Your task to perform on an android device: toggle javascript in the chrome app Image 0: 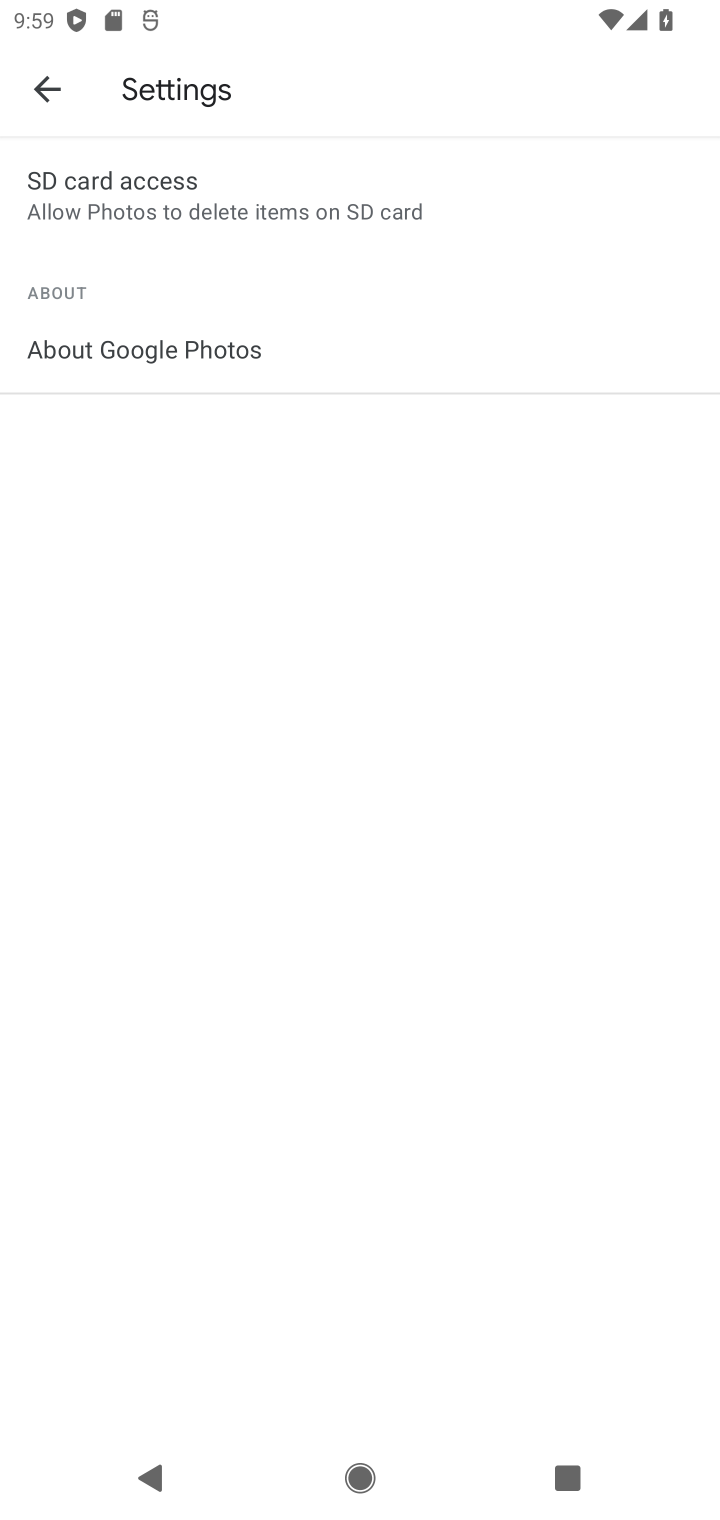
Step 0: press home button
Your task to perform on an android device: toggle javascript in the chrome app Image 1: 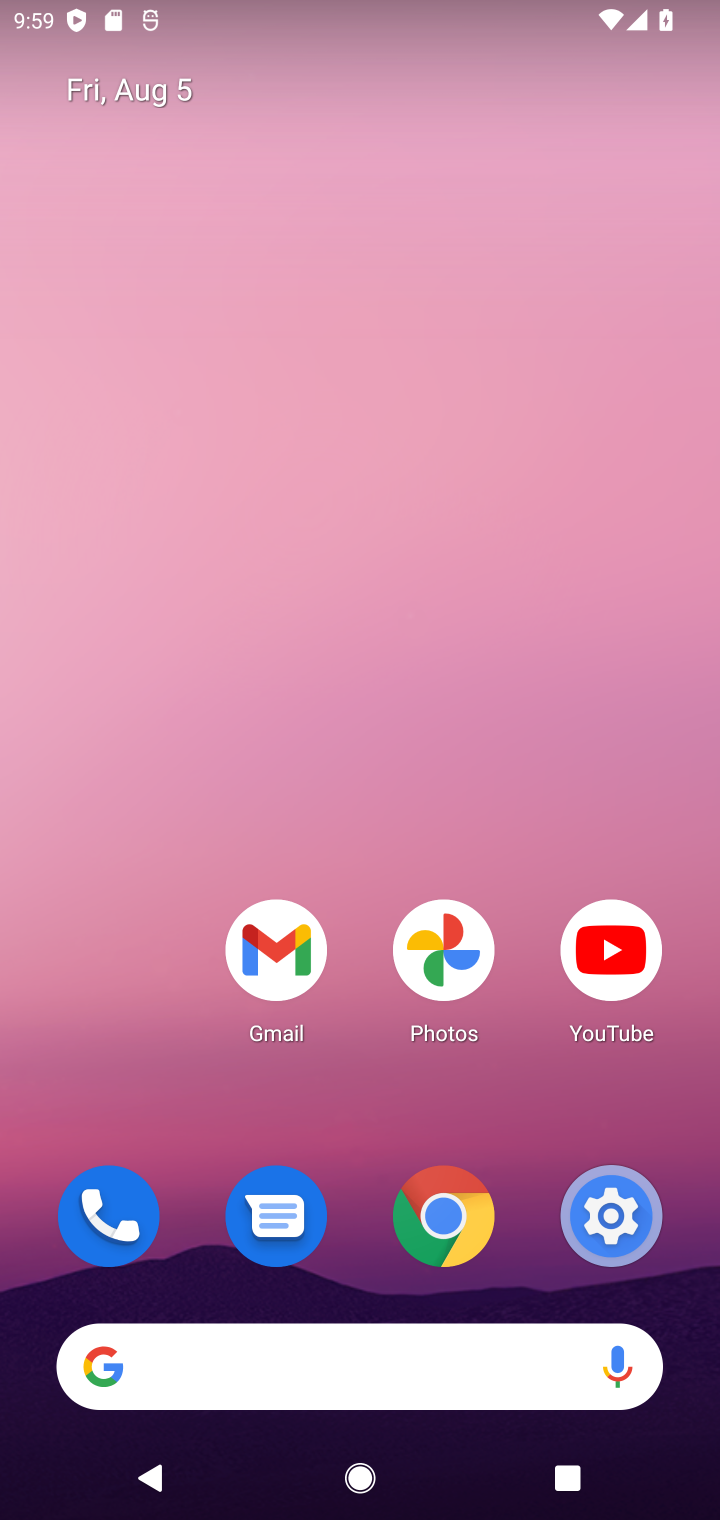
Step 1: drag from (419, 1288) to (491, 45)
Your task to perform on an android device: toggle javascript in the chrome app Image 2: 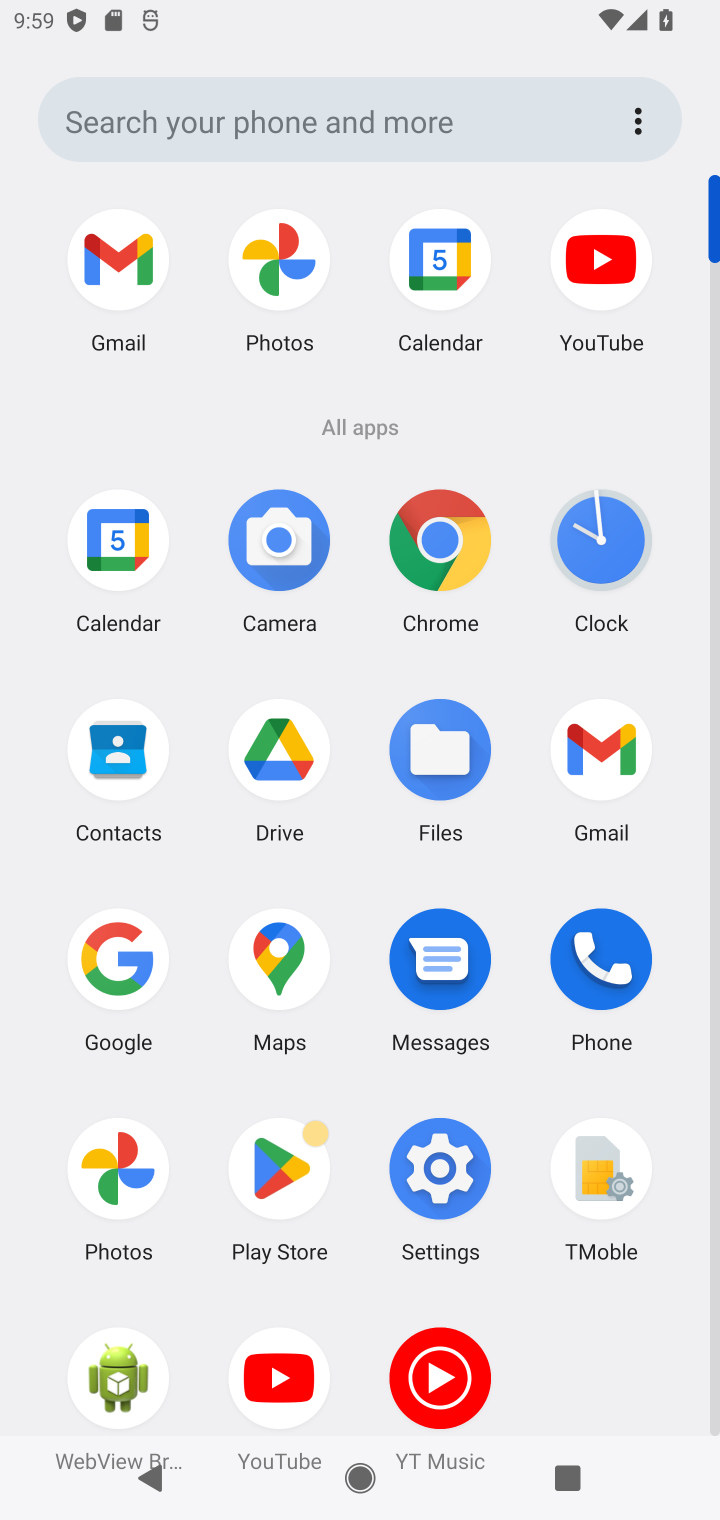
Step 2: click (432, 534)
Your task to perform on an android device: toggle javascript in the chrome app Image 3: 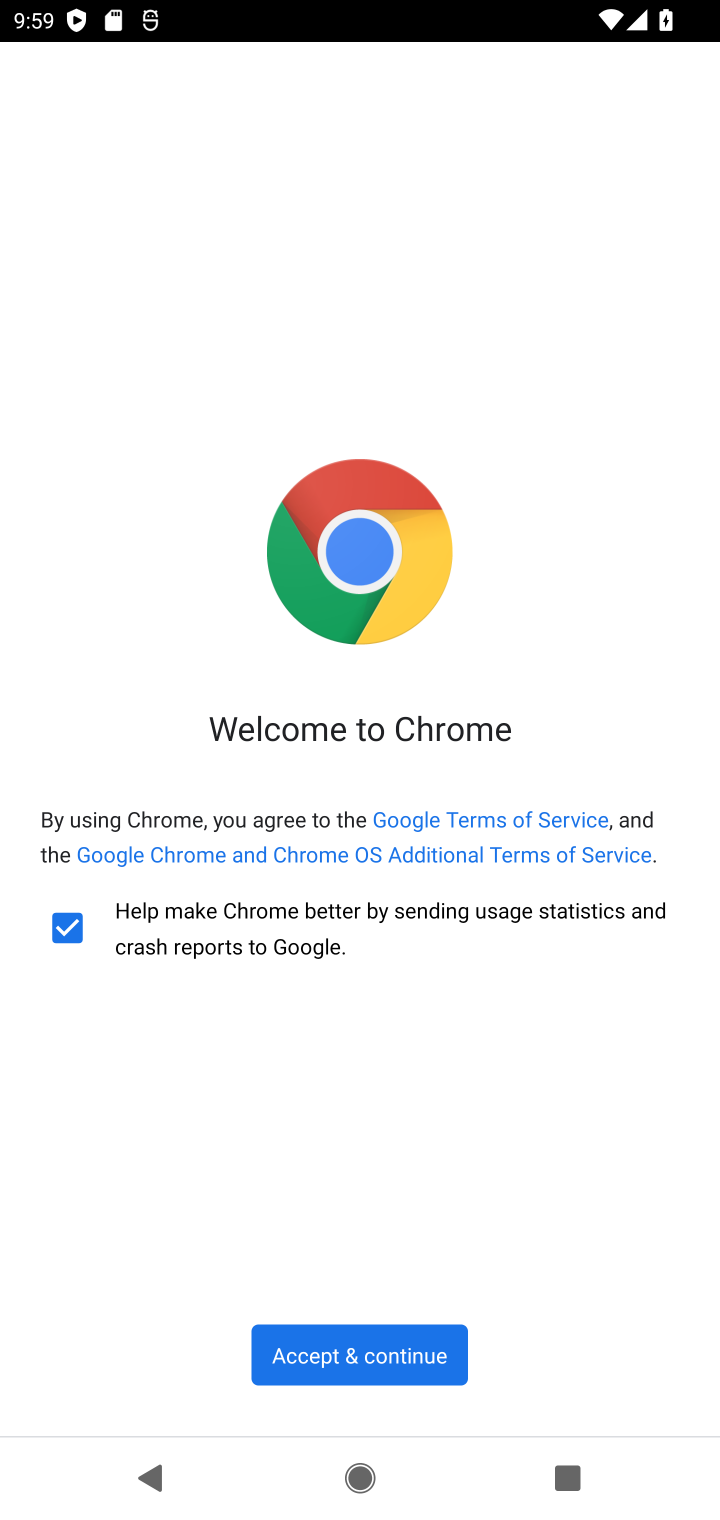
Step 3: click (304, 1341)
Your task to perform on an android device: toggle javascript in the chrome app Image 4: 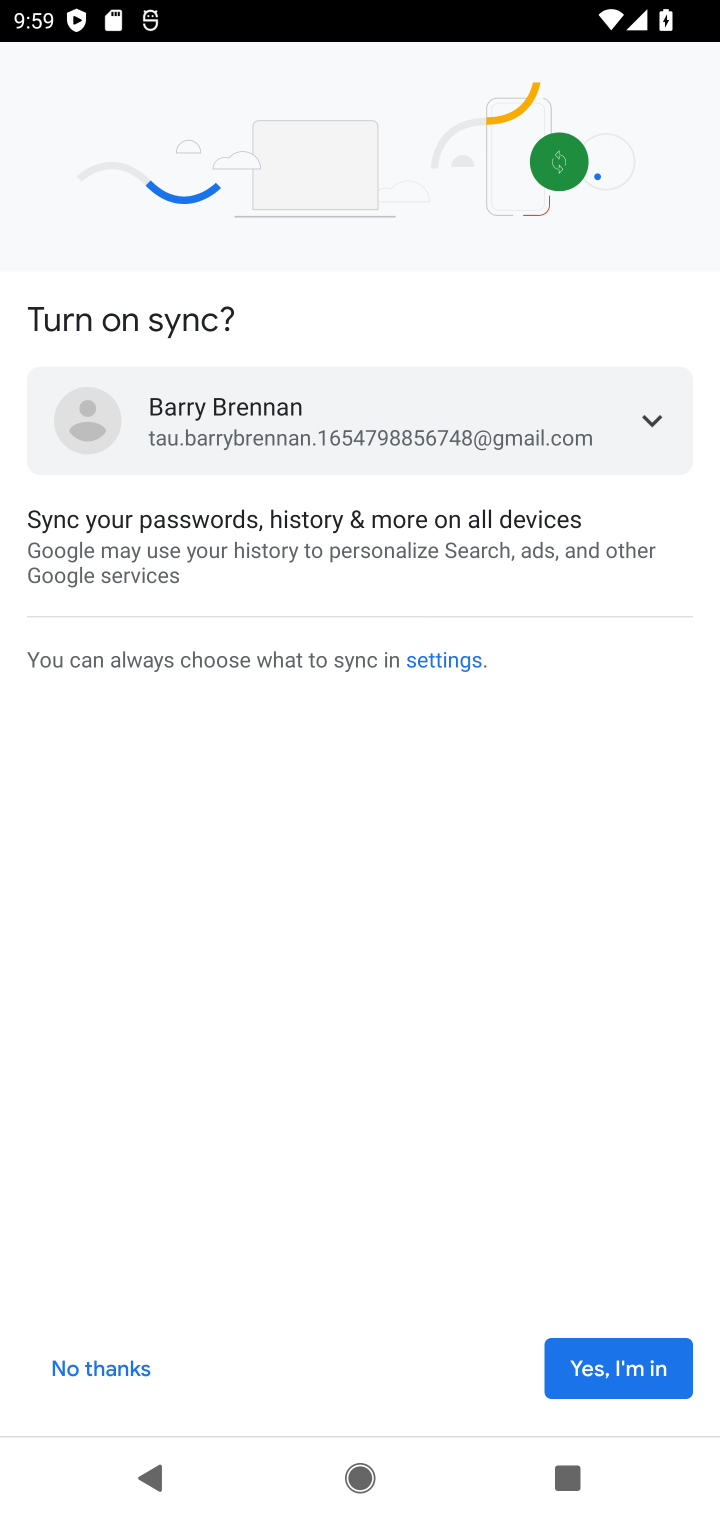
Step 4: click (107, 1367)
Your task to perform on an android device: toggle javascript in the chrome app Image 5: 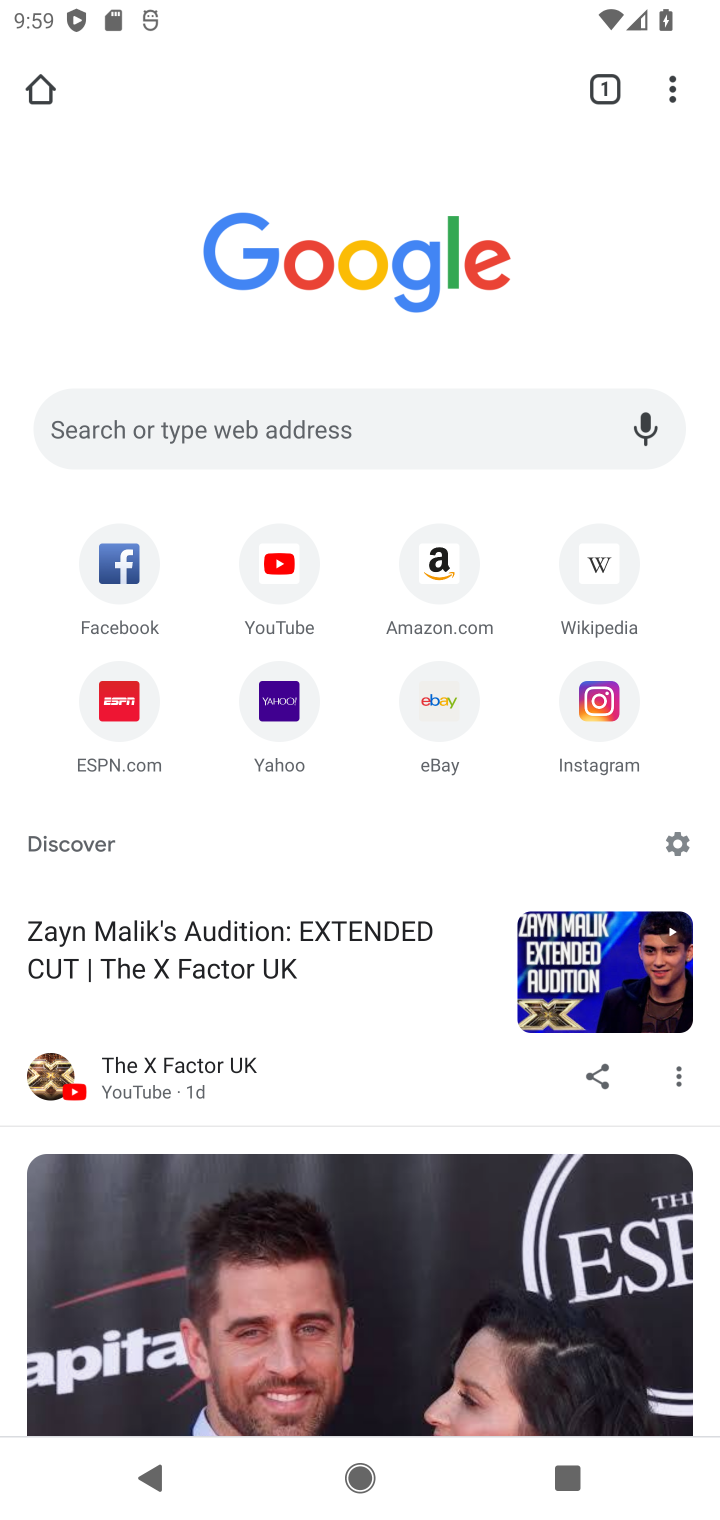
Step 5: click (674, 82)
Your task to perform on an android device: toggle javascript in the chrome app Image 6: 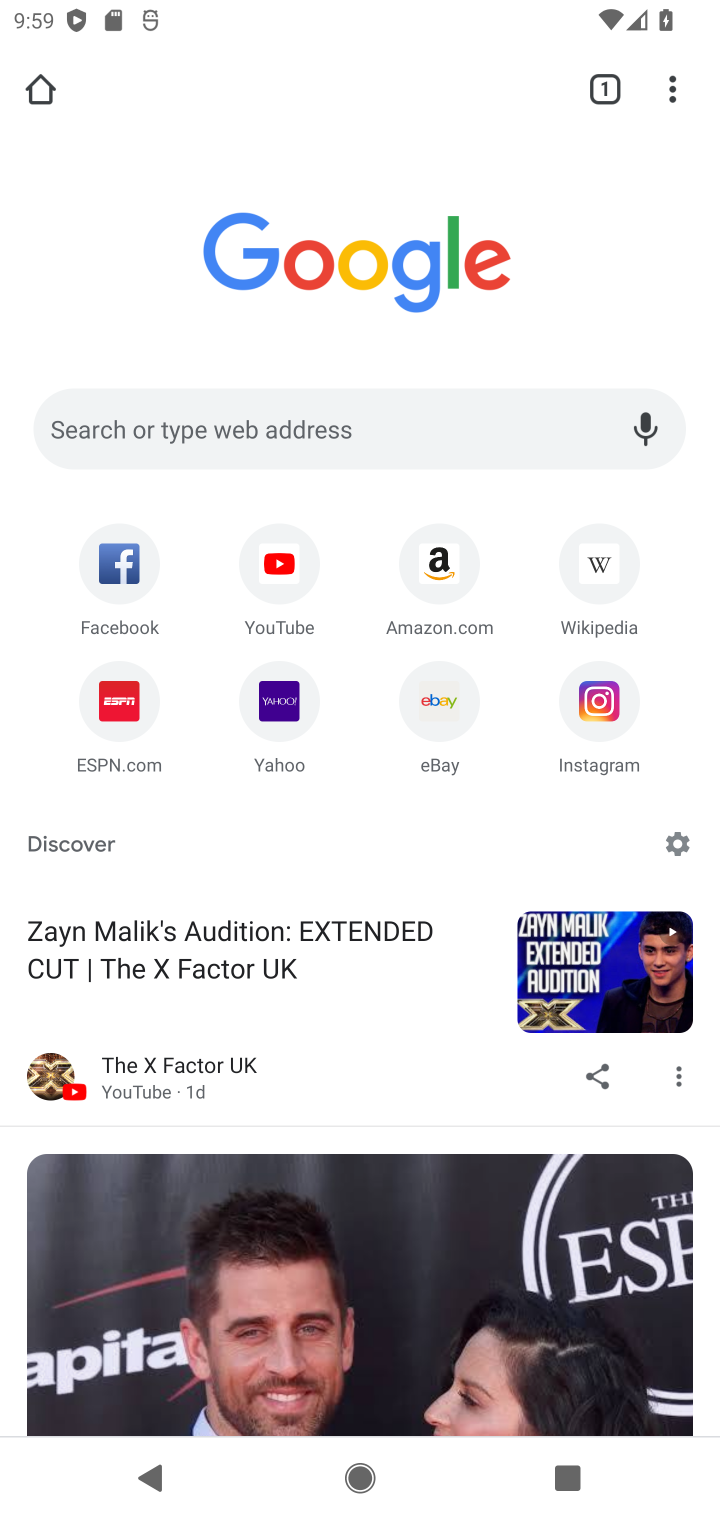
Step 6: click (669, 67)
Your task to perform on an android device: toggle javascript in the chrome app Image 7: 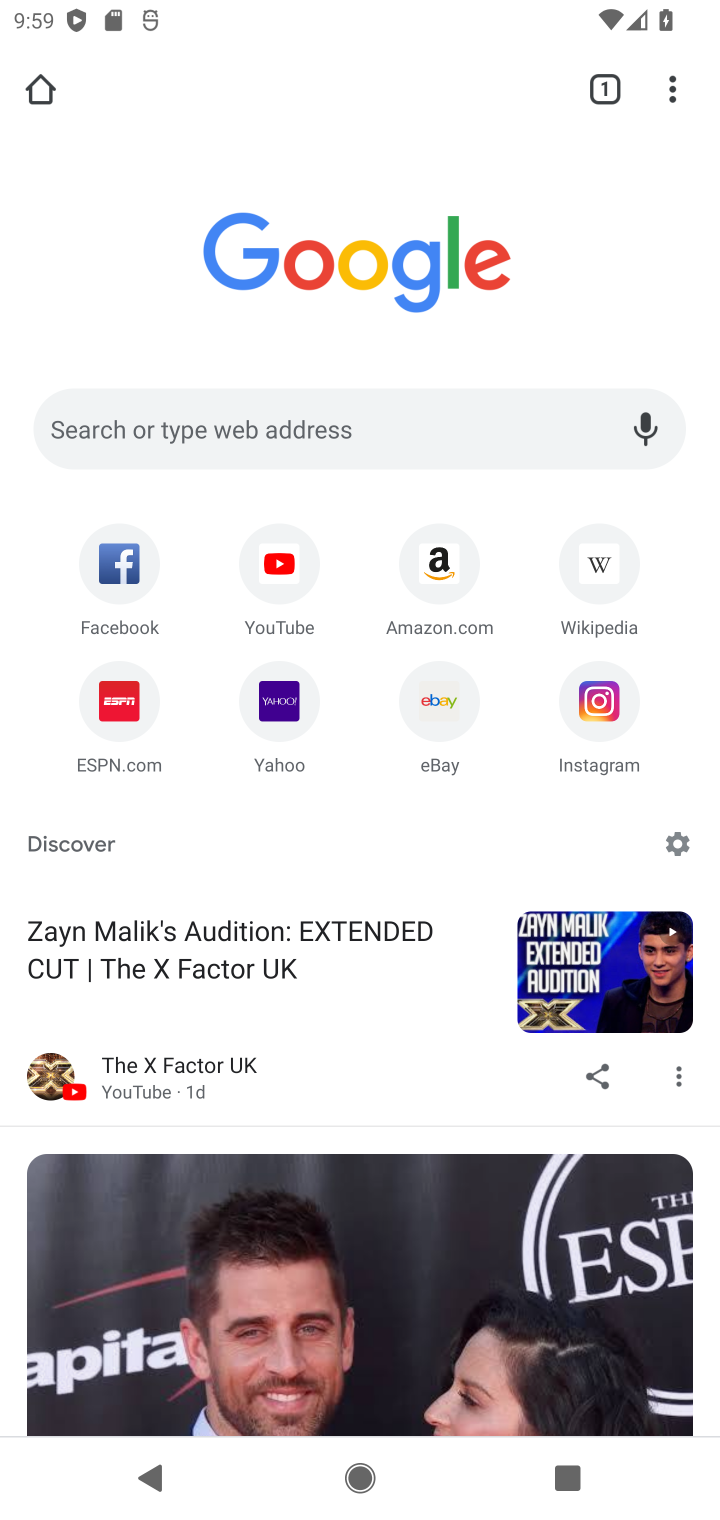
Step 7: click (665, 73)
Your task to perform on an android device: toggle javascript in the chrome app Image 8: 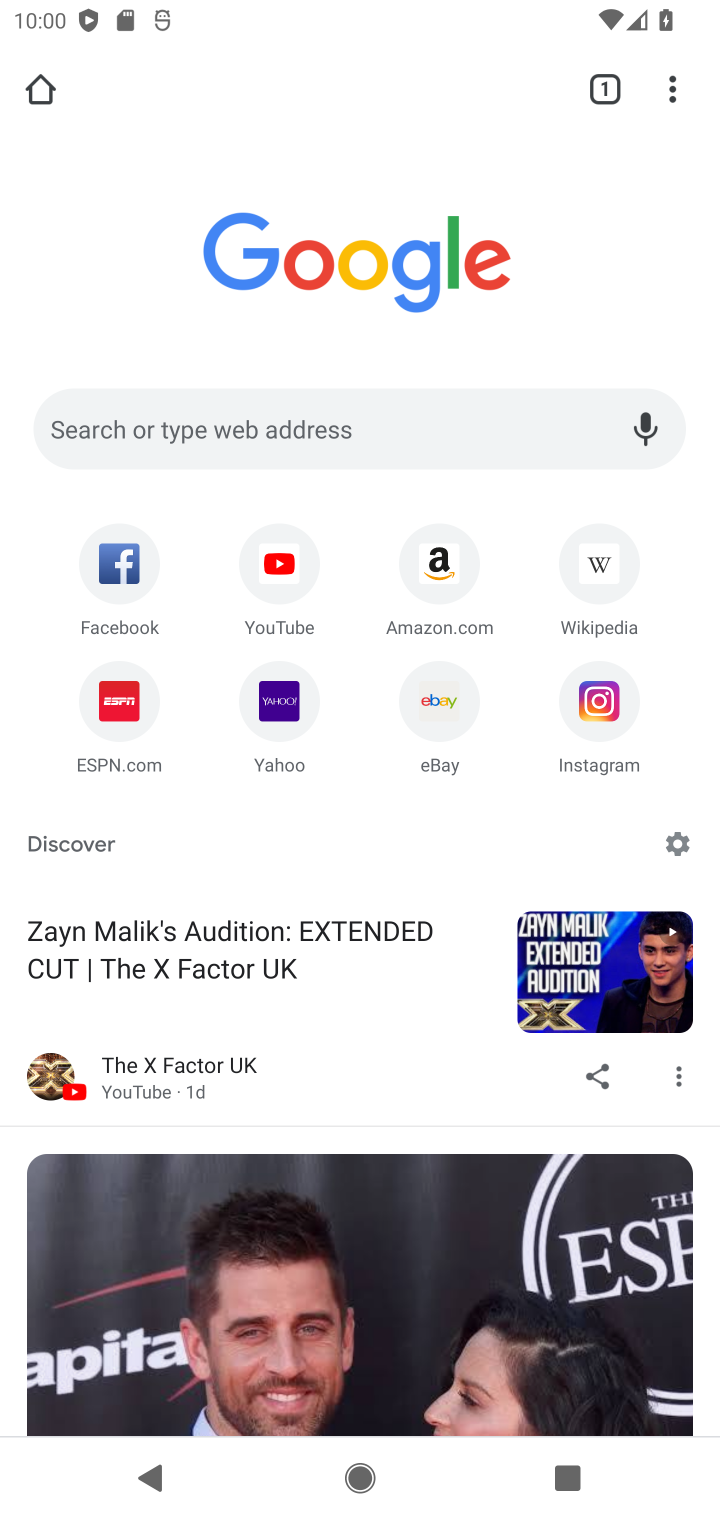
Step 8: click (680, 95)
Your task to perform on an android device: toggle javascript in the chrome app Image 9: 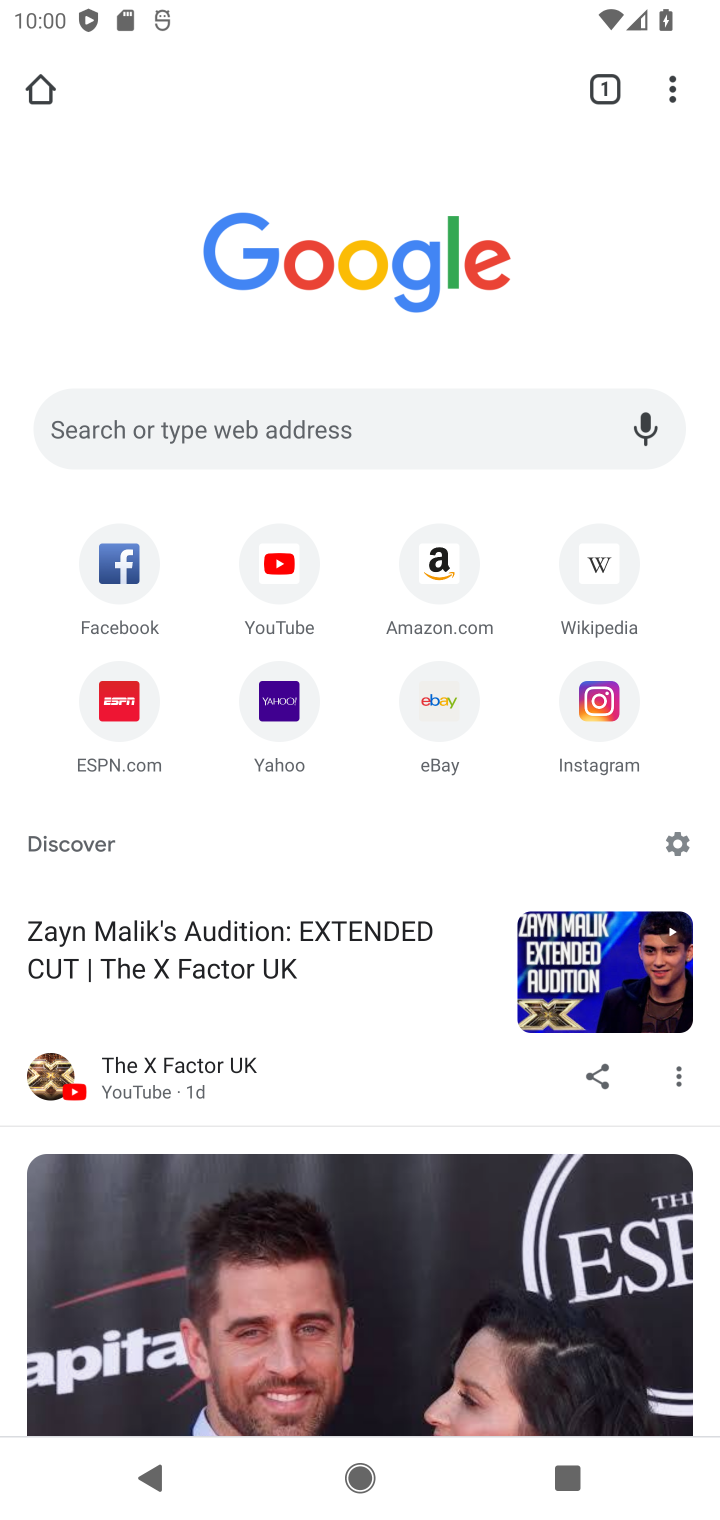
Step 9: click (668, 89)
Your task to perform on an android device: toggle javascript in the chrome app Image 10: 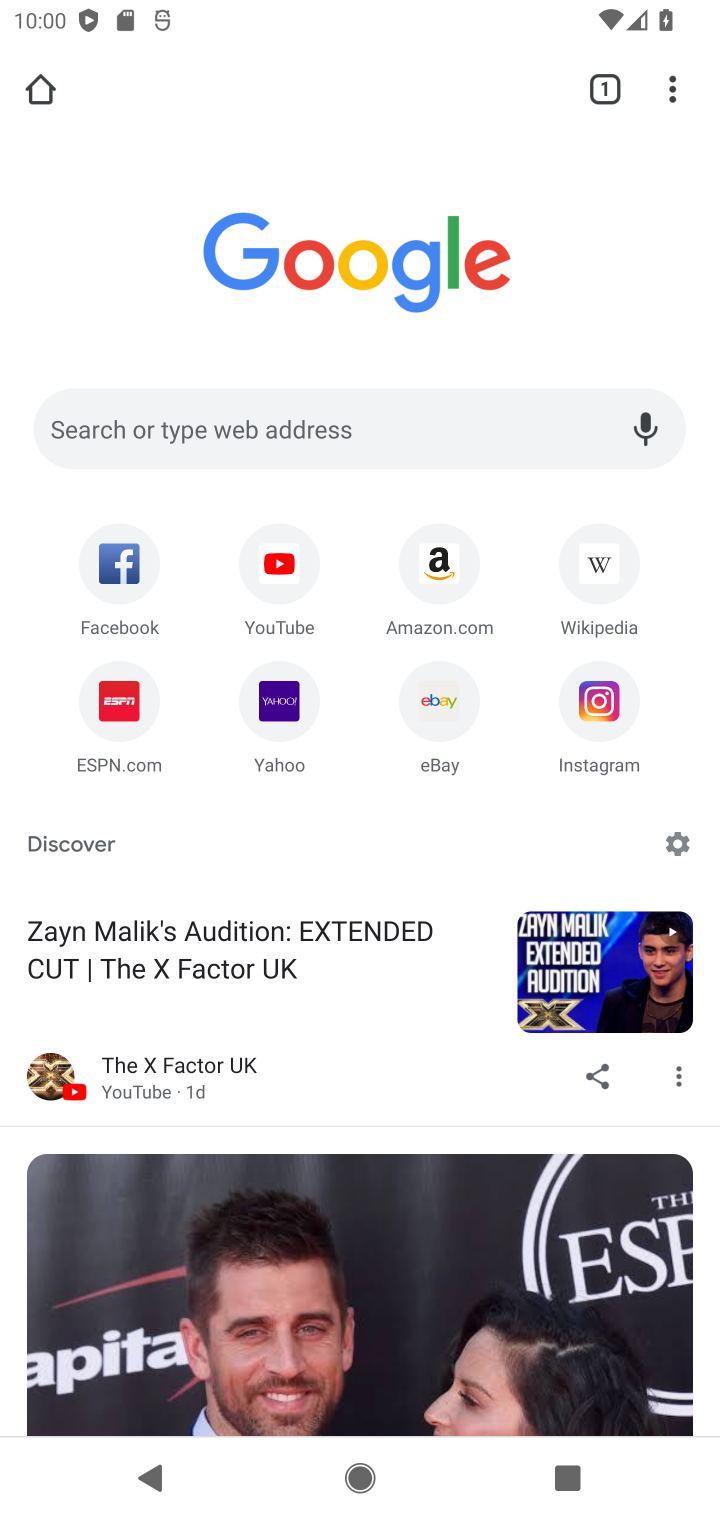
Step 10: drag from (668, 89) to (445, 803)
Your task to perform on an android device: toggle javascript in the chrome app Image 11: 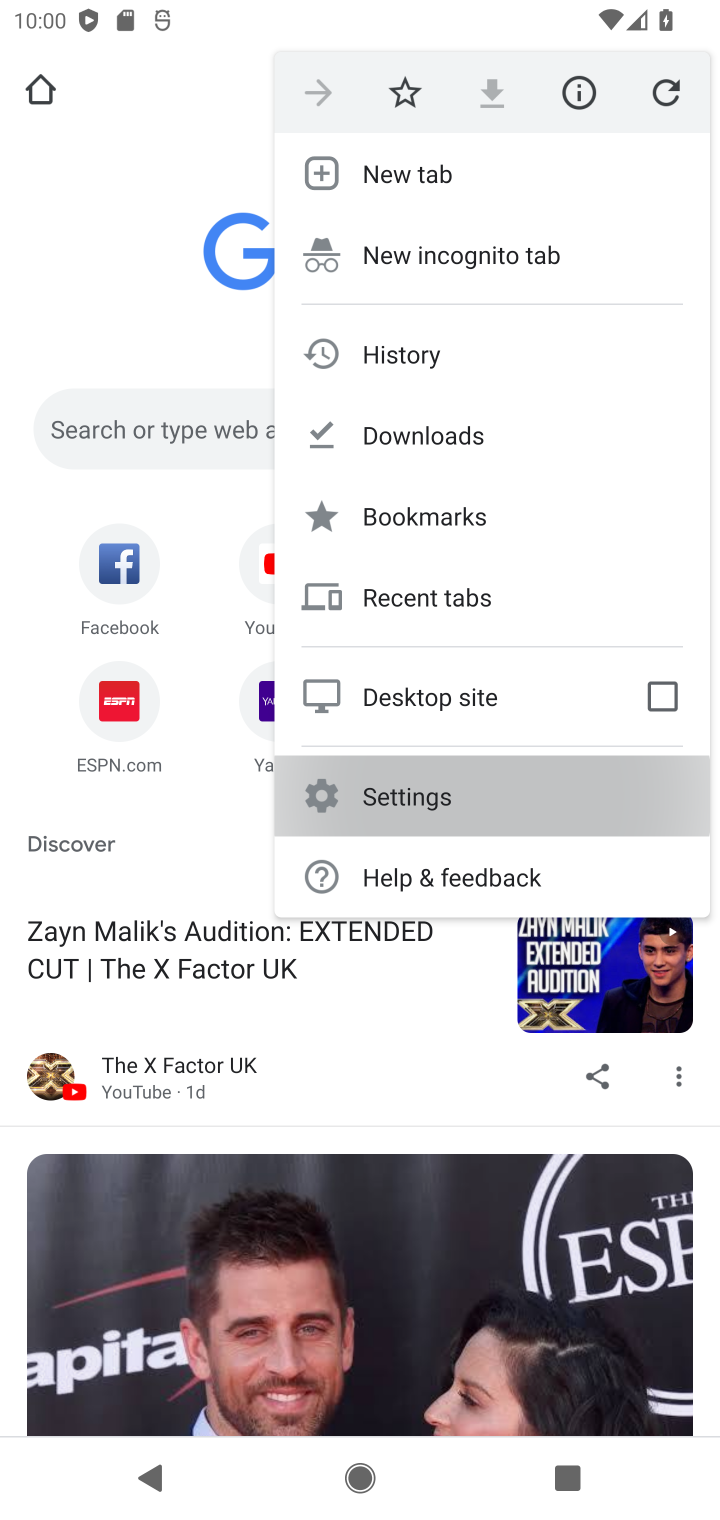
Step 11: click (445, 803)
Your task to perform on an android device: toggle javascript in the chrome app Image 12: 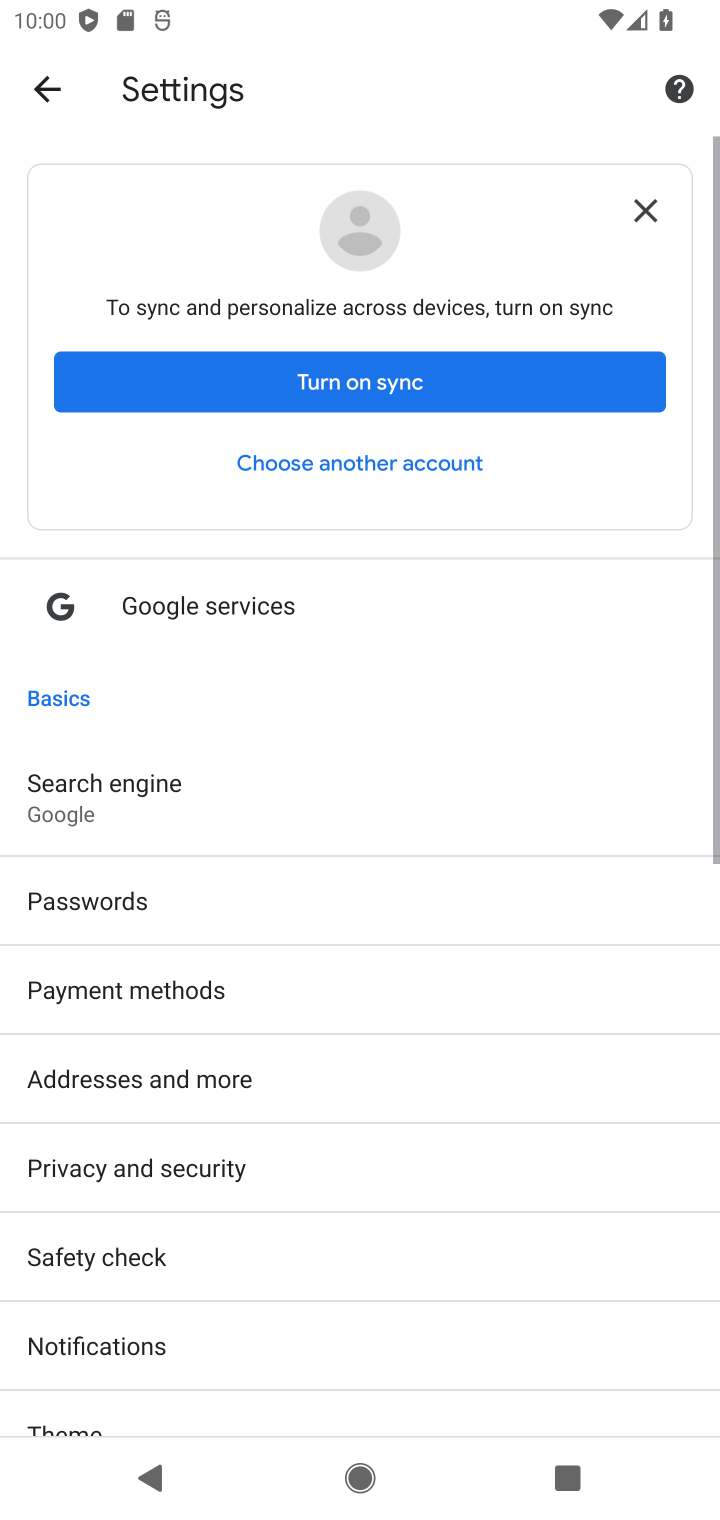
Step 12: drag from (400, 1309) to (571, 364)
Your task to perform on an android device: toggle javascript in the chrome app Image 13: 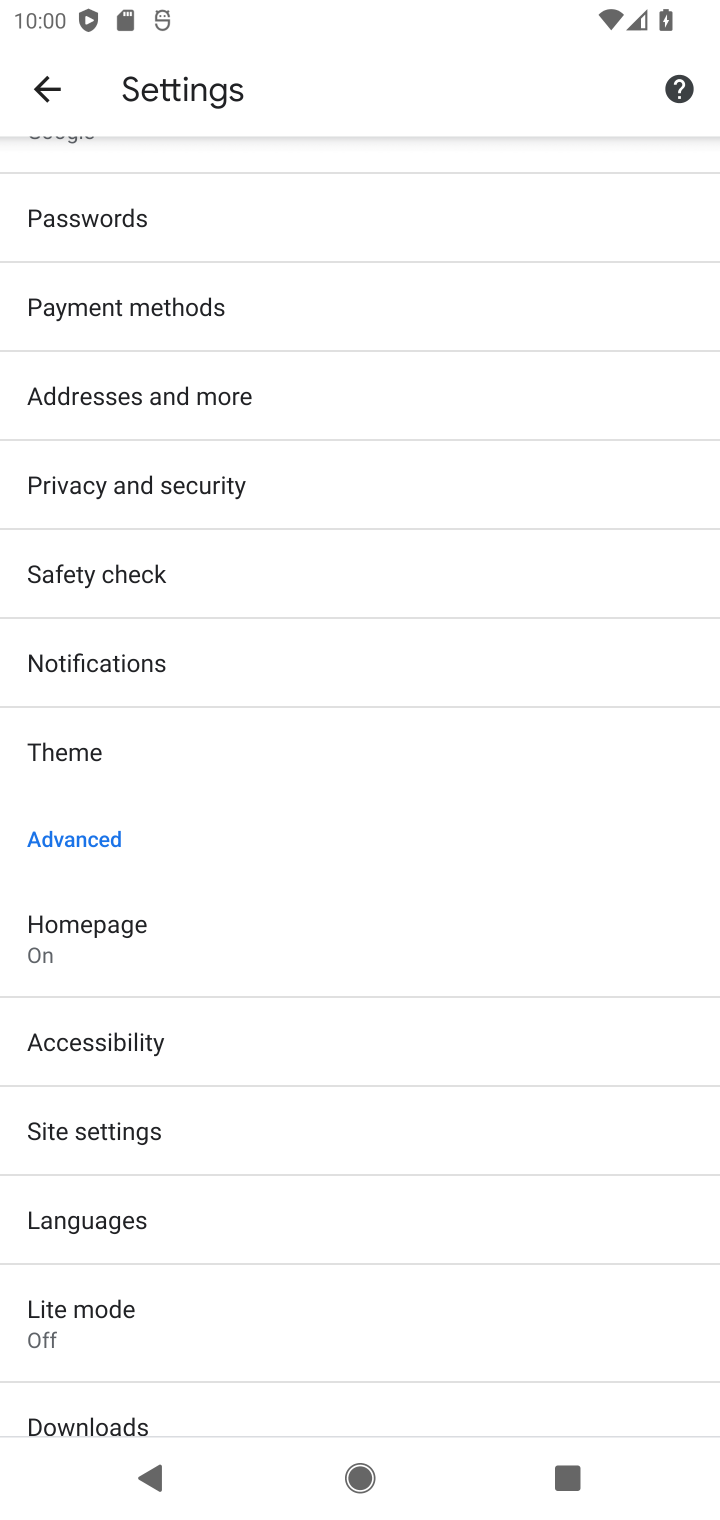
Step 13: click (194, 1135)
Your task to perform on an android device: toggle javascript in the chrome app Image 14: 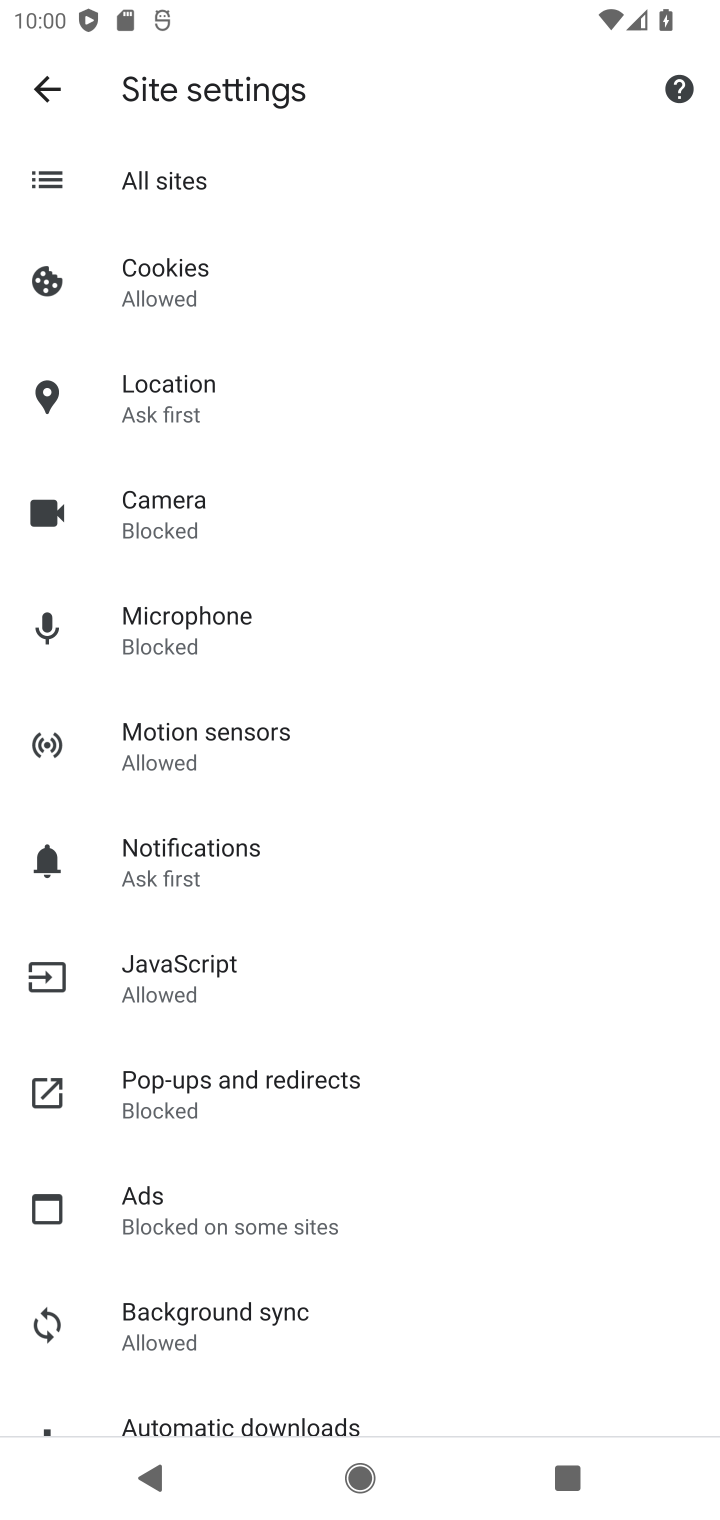
Step 14: click (216, 954)
Your task to perform on an android device: toggle javascript in the chrome app Image 15: 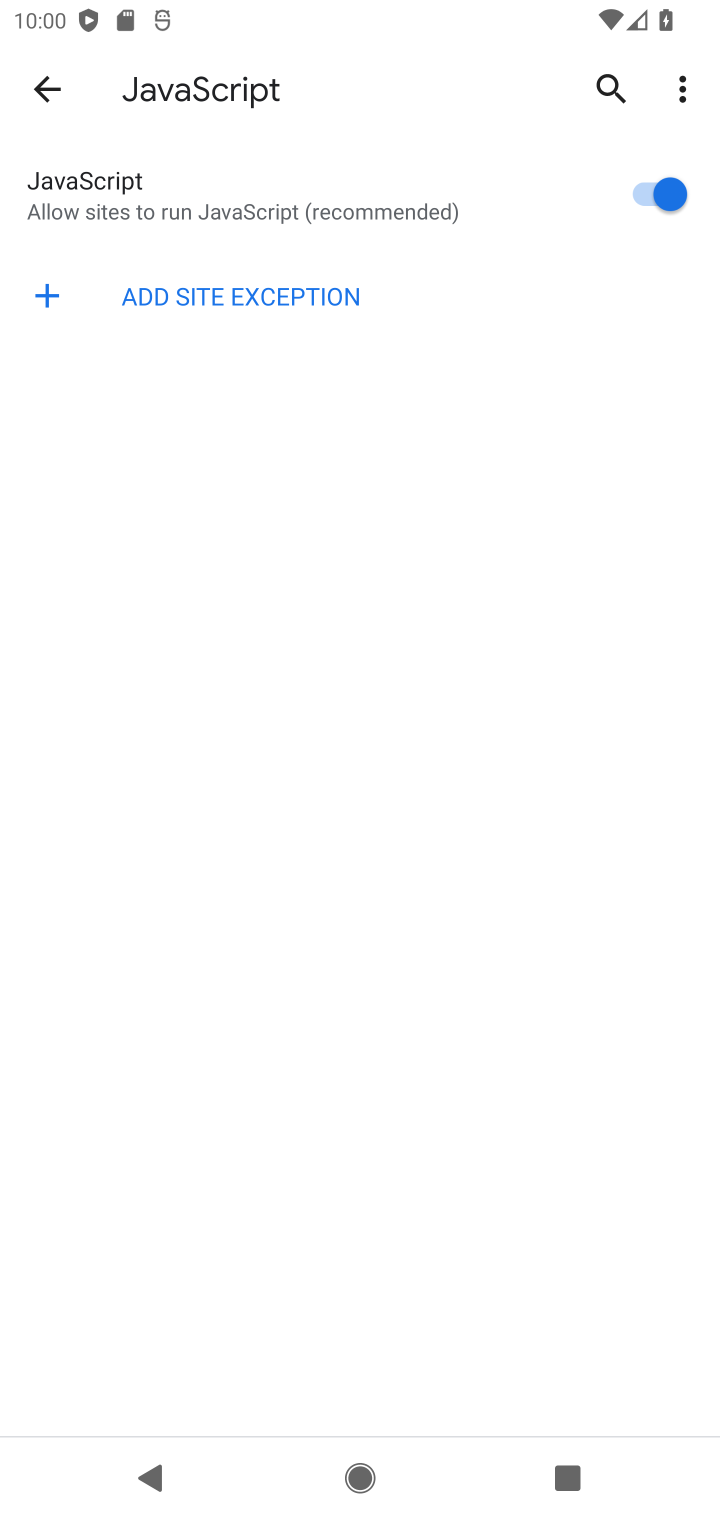
Step 15: click (651, 196)
Your task to perform on an android device: toggle javascript in the chrome app Image 16: 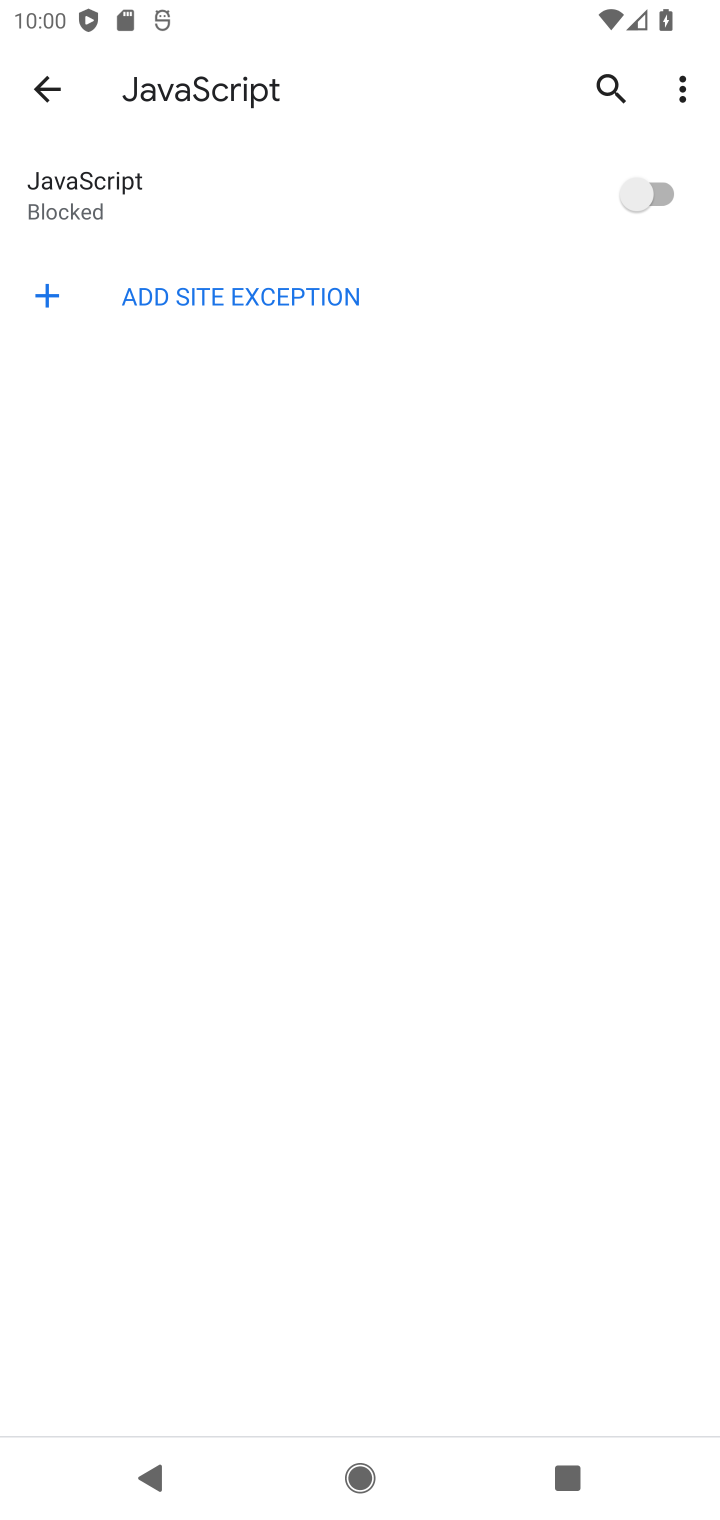
Step 16: task complete